Your task to perform on an android device: Go to Reddit.com Image 0: 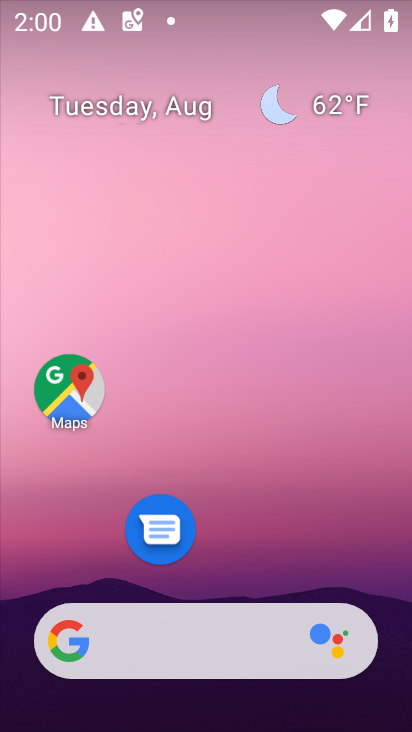
Step 0: click (247, 631)
Your task to perform on an android device: Go to Reddit.com Image 1: 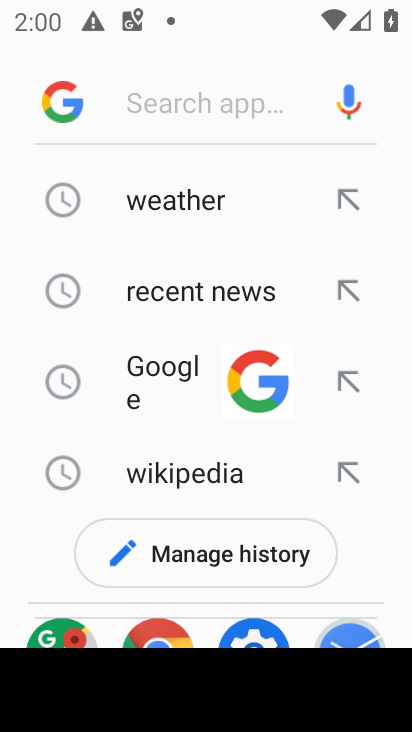
Step 1: type "reddit"
Your task to perform on an android device: Go to Reddit.com Image 2: 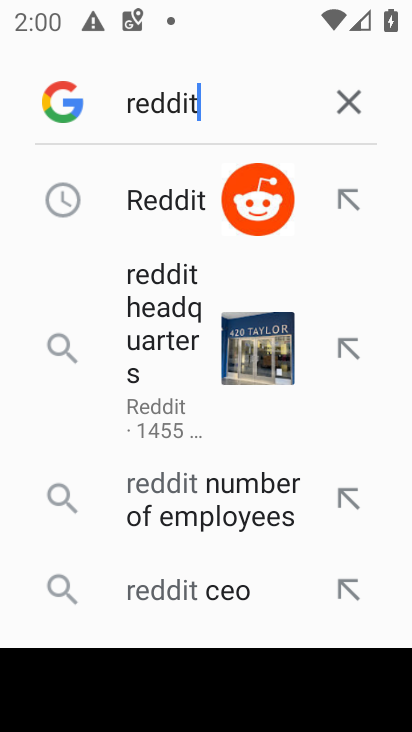
Step 2: click (189, 230)
Your task to perform on an android device: Go to Reddit.com Image 3: 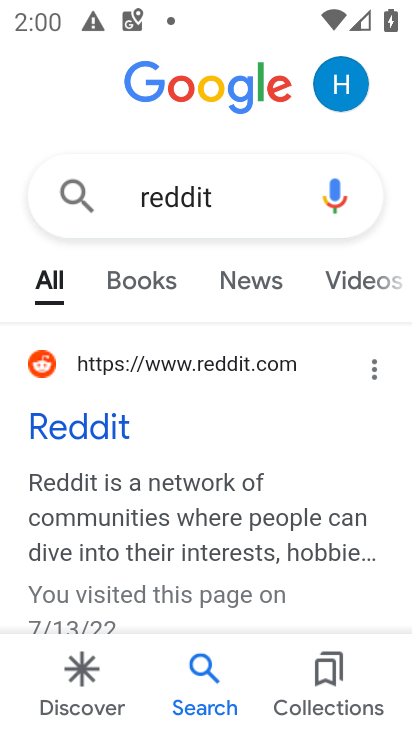
Step 3: click (139, 416)
Your task to perform on an android device: Go to Reddit.com Image 4: 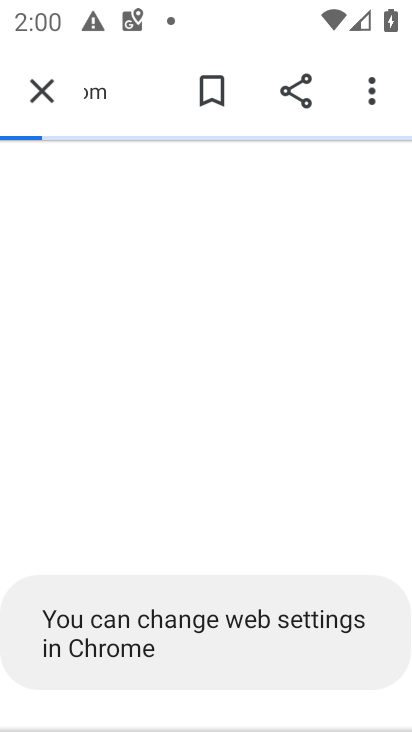
Step 4: task complete